Your task to perform on an android device: Open wifi settings Image 0: 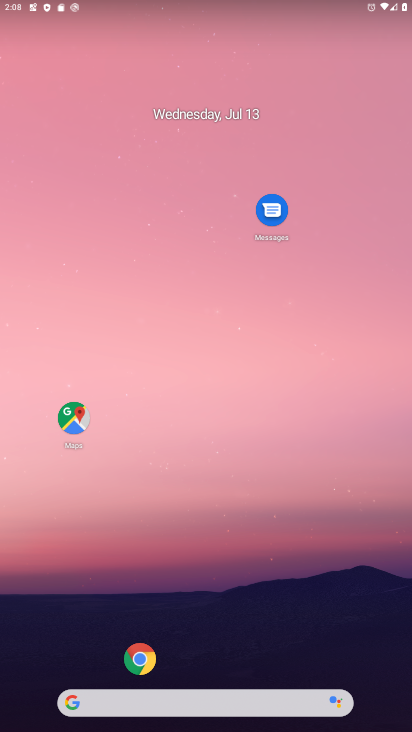
Step 0: drag from (42, 699) to (154, 189)
Your task to perform on an android device: Open wifi settings Image 1: 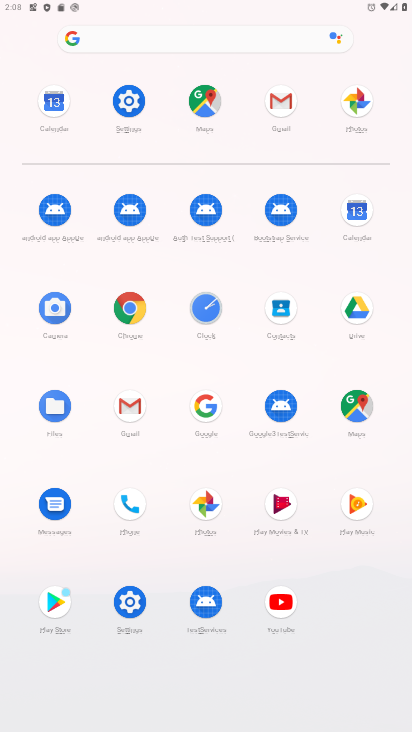
Step 1: click (117, 618)
Your task to perform on an android device: Open wifi settings Image 2: 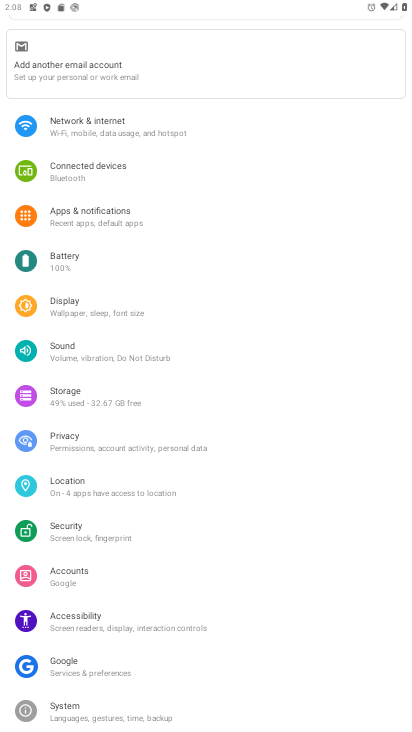
Step 2: click (77, 127)
Your task to perform on an android device: Open wifi settings Image 3: 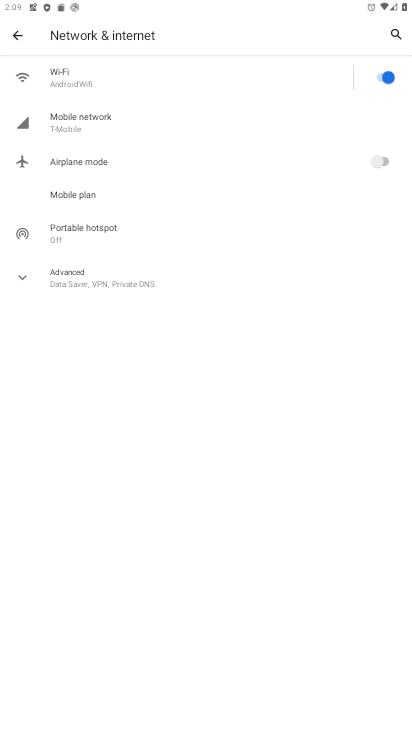
Step 3: task complete